Your task to perform on an android device: Open Google Image 0: 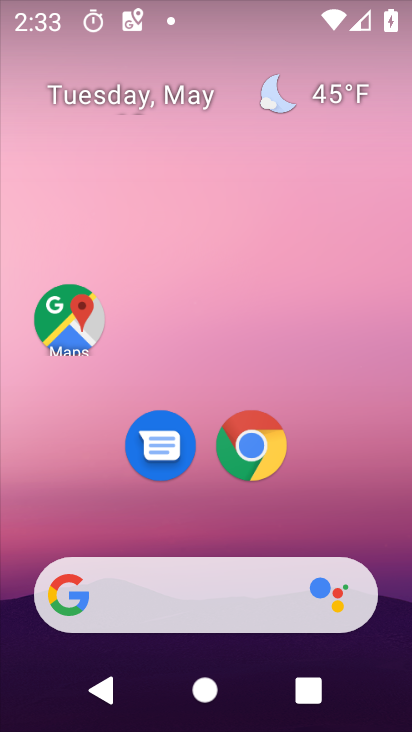
Step 0: drag from (263, 463) to (327, 145)
Your task to perform on an android device: Open Google Image 1: 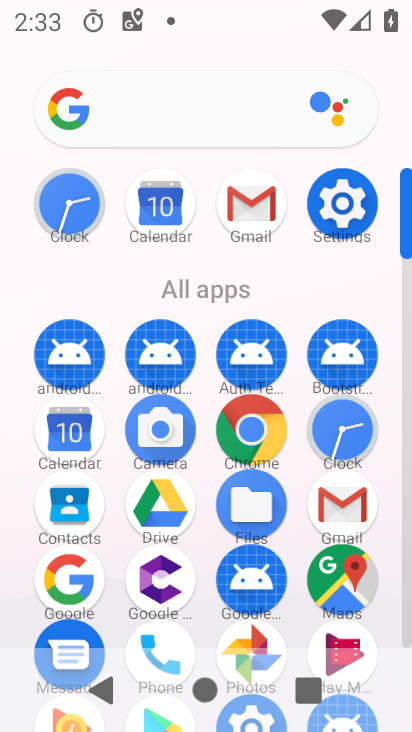
Step 1: click (84, 584)
Your task to perform on an android device: Open Google Image 2: 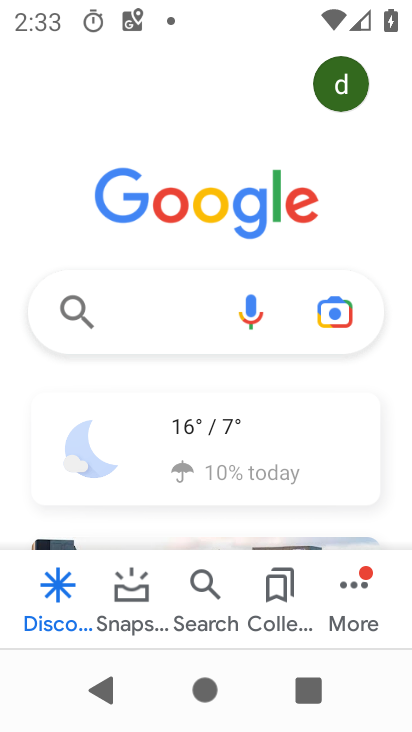
Step 2: task complete